Your task to perform on an android device: Open Google Maps and go to "Timeline" Image 0: 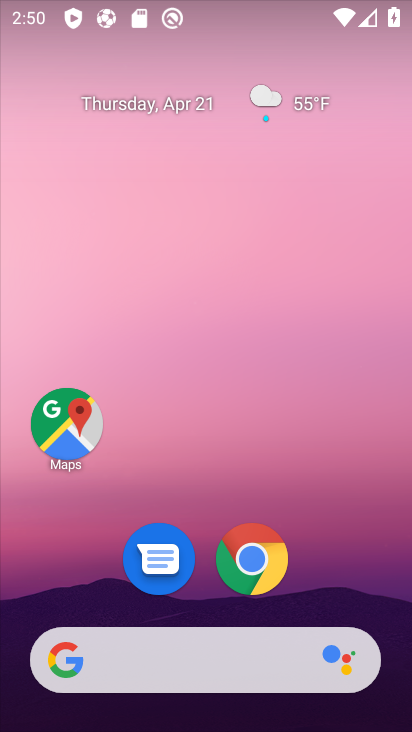
Step 0: drag from (349, 489) to (301, 100)
Your task to perform on an android device: Open Google Maps and go to "Timeline" Image 1: 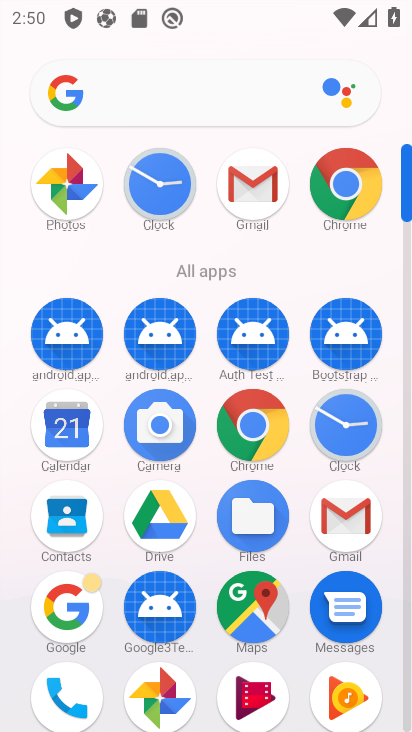
Step 1: click (253, 622)
Your task to perform on an android device: Open Google Maps and go to "Timeline" Image 2: 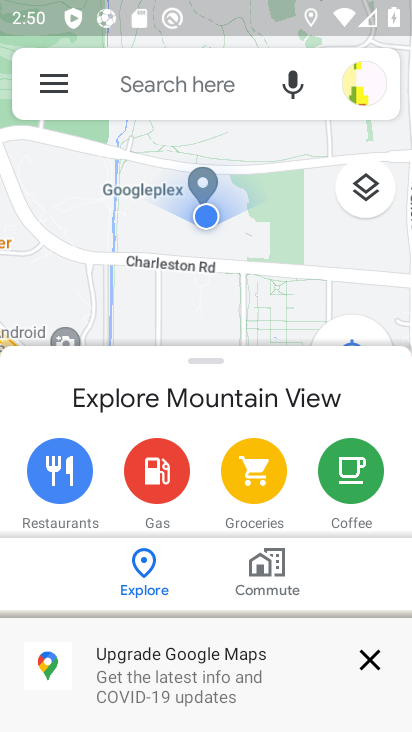
Step 2: click (50, 92)
Your task to perform on an android device: Open Google Maps and go to "Timeline" Image 3: 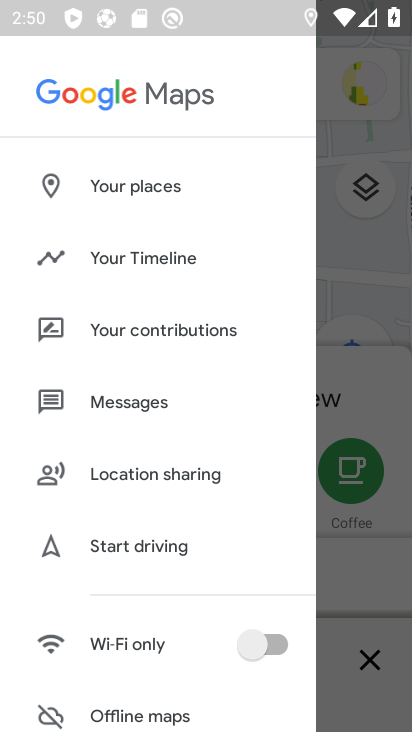
Step 3: click (142, 249)
Your task to perform on an android device: Open Google Maps and go to "Timeline" Image 4: 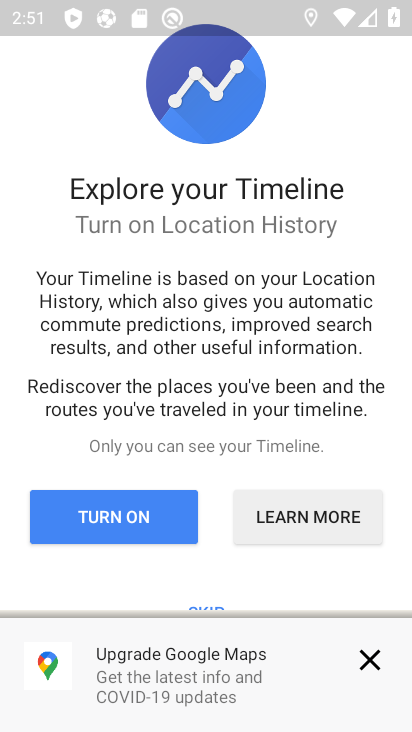
Step 4: click (366, 658)
Your task to perform on an android device: Open Google Maps and go to "Timeline" Image 5: 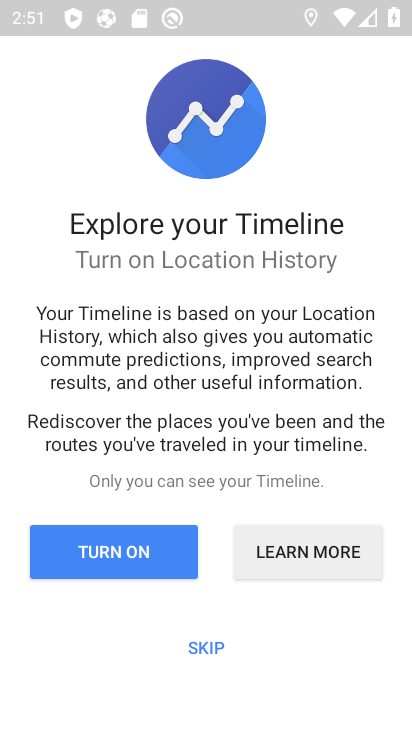
Step 5: click (197, 644)
Your task to perform on an android device: Open Google Maps and go to "Timeline" Image 6: 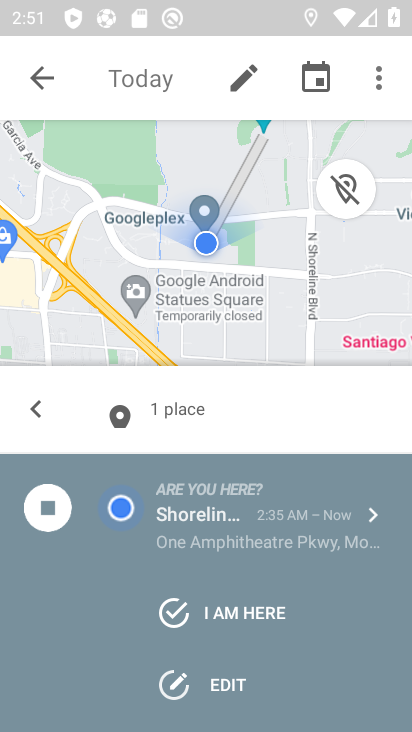
Step 6: task complete